Your task to perform on an android device: turn on wifi Image 0: 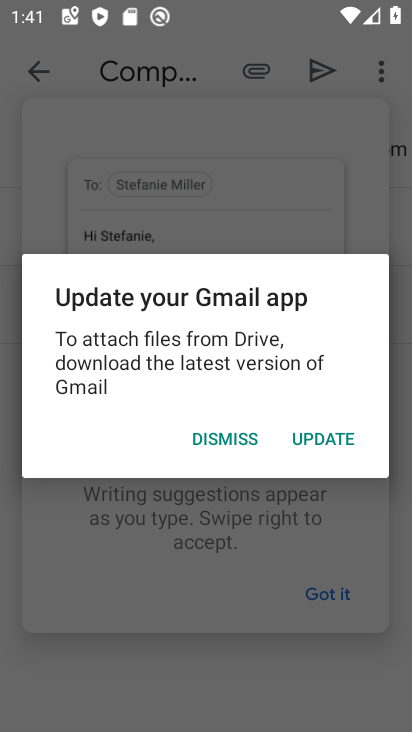
Step 0: press home button
Your task to perform on an android device: turn on wifi Image 1: 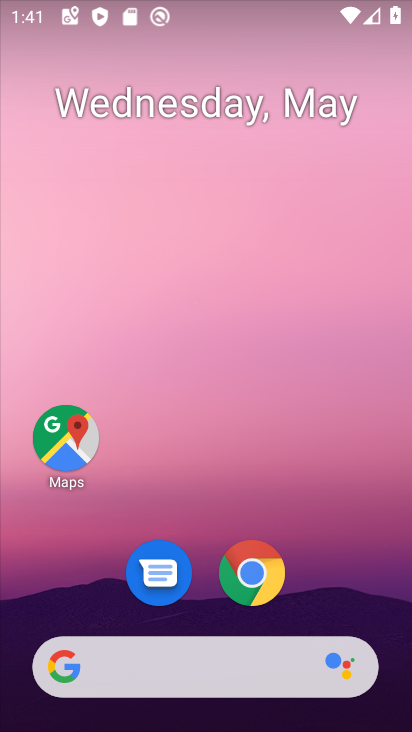
Step 1: drag from (296, 600) to (327, 1)
Your task to perform on an android device: turn on wifi Image 2: 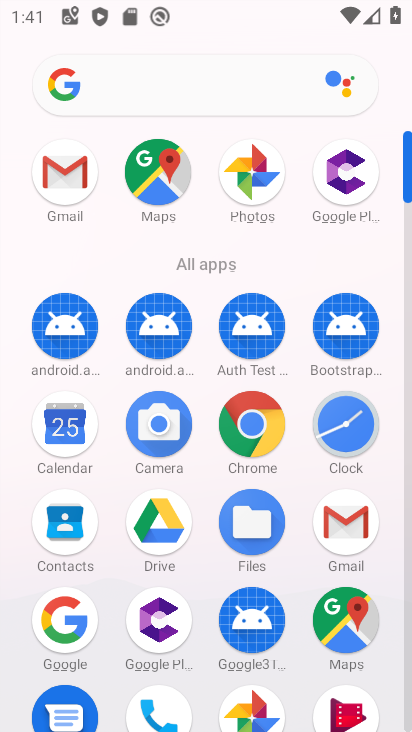
Step 2: drag from (202, 590) to (214, 152)
Your task to perform on an android device: turn on wifi Image 3: 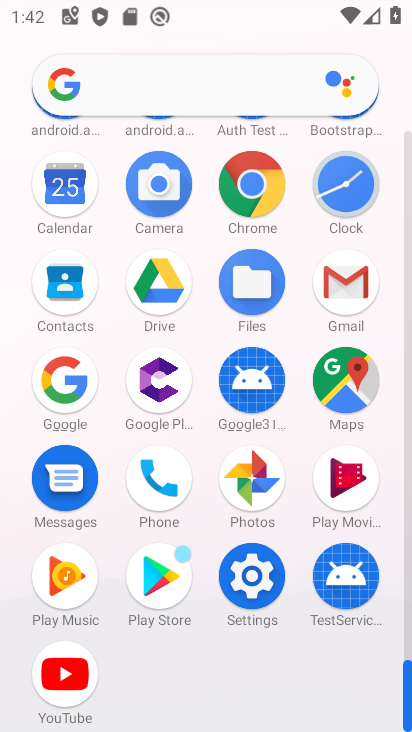
Step 3: click (250, 572)
Your task to perform on an android device: turn on wifi Image 4: 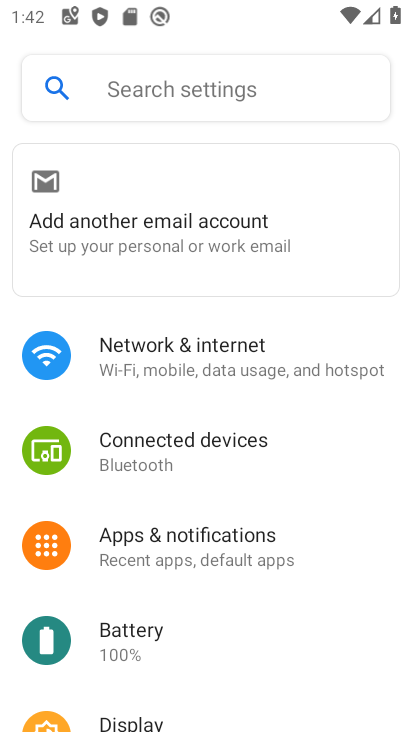
Step 4: click (182, 360)
Your task to perform on an android device: turn on wifi Image 5: 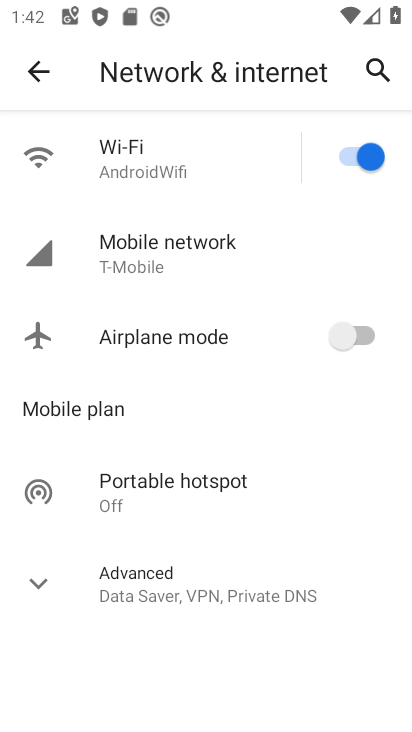
Step 5: task complete